Your task to perform on an android device: change the clock display to digital Image 0: 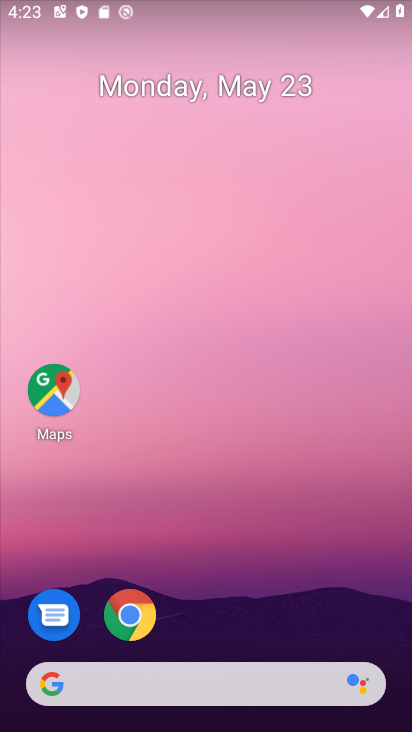
Step 0: drag from (231, 582) to (266, 121)
Your task to perform on an android device: change the clock display to digital Image 1: 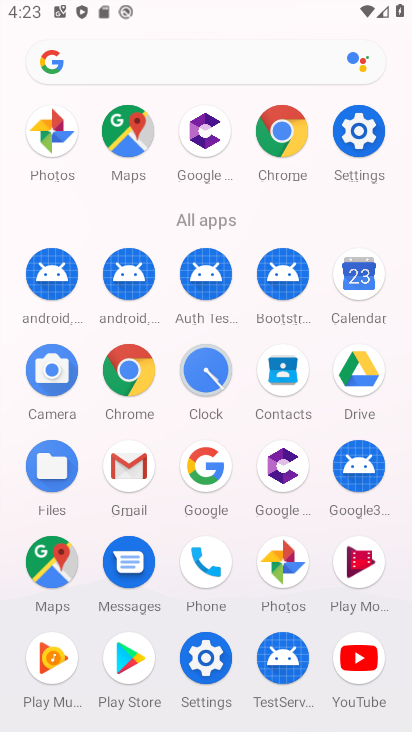
Step 1: click (210, 377)
Your task to perform on an android device: change the clock display to digital Image 2: 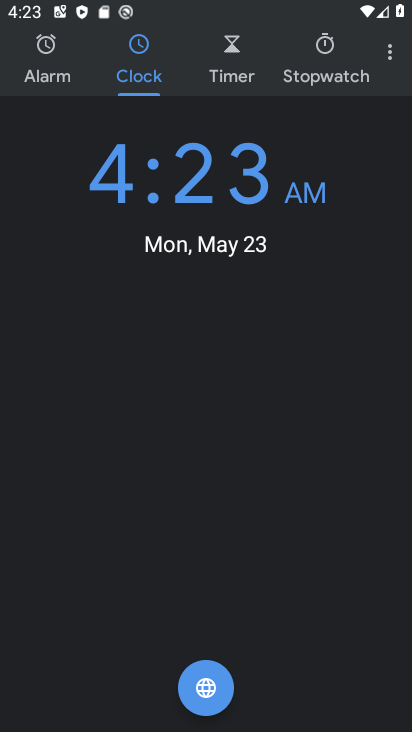
Step 2: click (393, 53)
Your task to perform on an android device: change the clock display to digital Image 3: 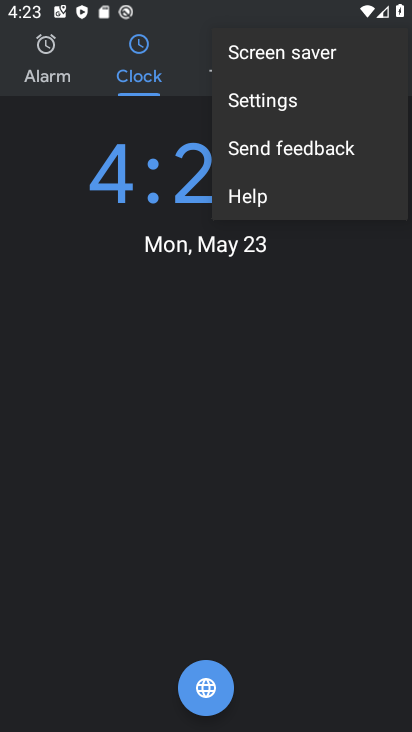
Step 3: click (264, 108)
Your task to perform on an android device: change the clock display to digital Image 4: 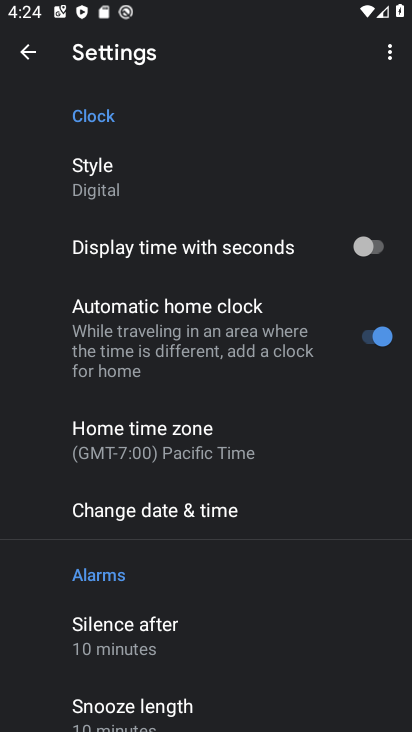
Step 4: click (112, 195)
Your task to perform on an android device: change the clock display to digital Image 5: 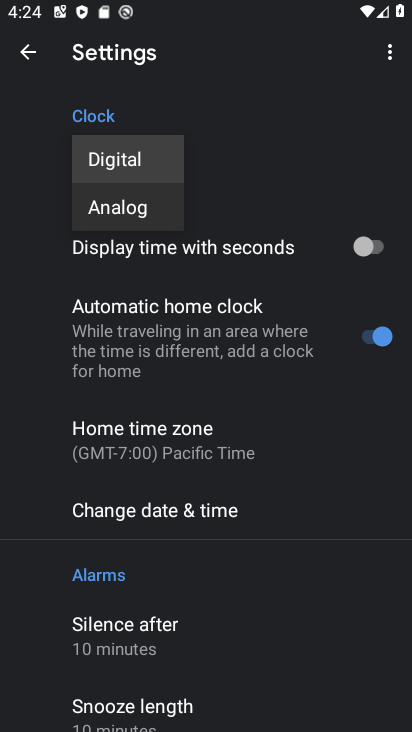
Step 5: click (136, 163)
Your task to perform on an android device: change the clock display to digital Image 6: 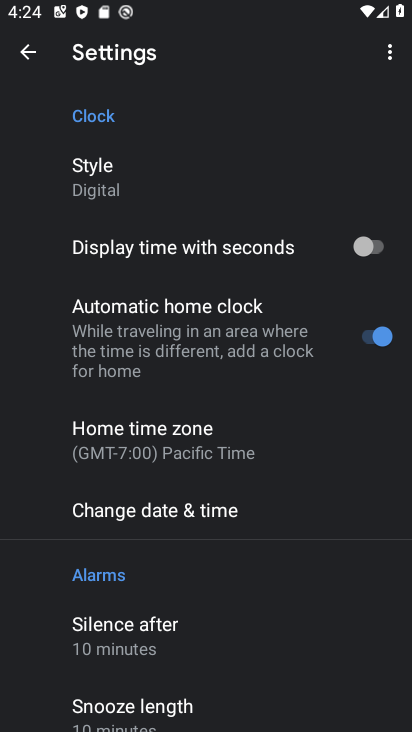
Step 6: task complete